Your task to perform on an android device: When is my next appointment? Image 0: 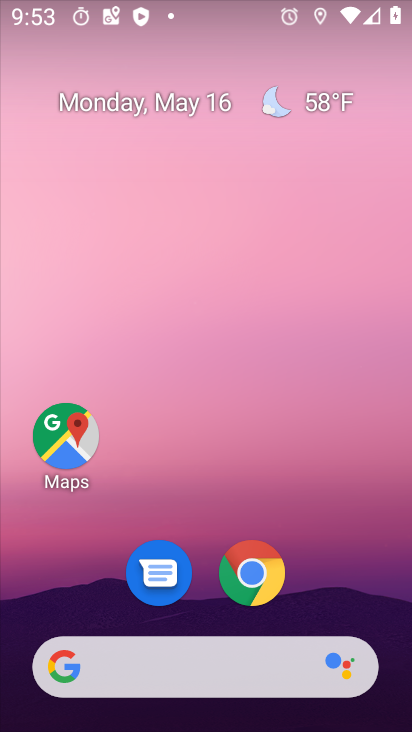
Step 0: drag from (376, 619) to (256, 0)
Your task to perform on an android device: When is my next appointment? Image 1: 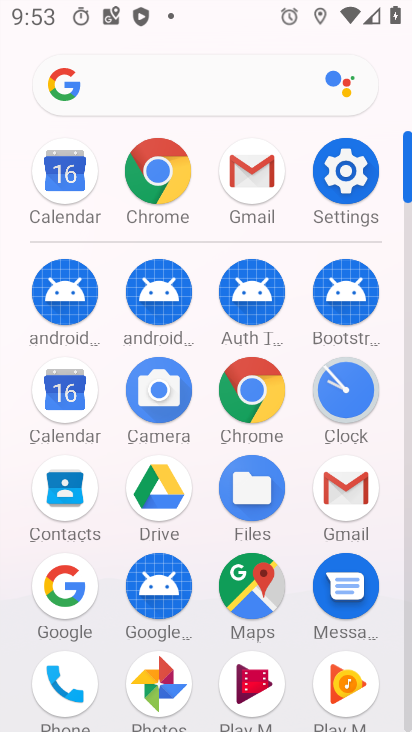
Step 1: click (56, 390)
Your task to perform on an android device: When is my next appointment? Image 2: 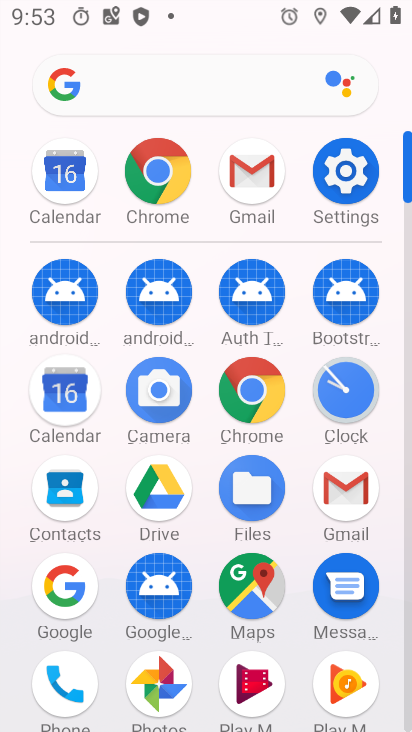
Step 2: click (59, 398)
Your task to perform on an android device: When is my next appointment? Image 3: 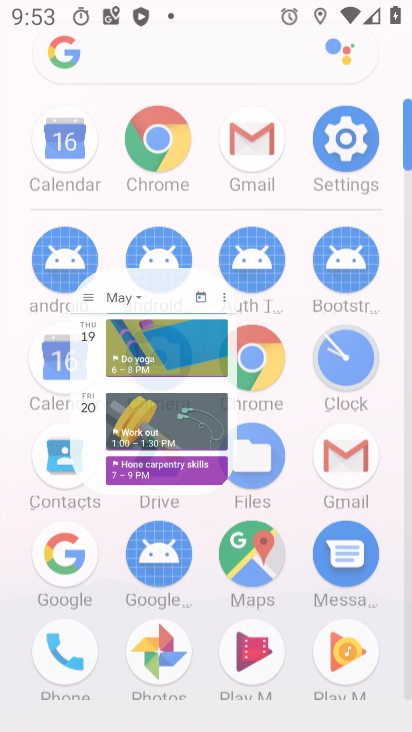
Step 3: click (60, 398)
Your task to perform on an android device: When is my next appointment? Image 4: 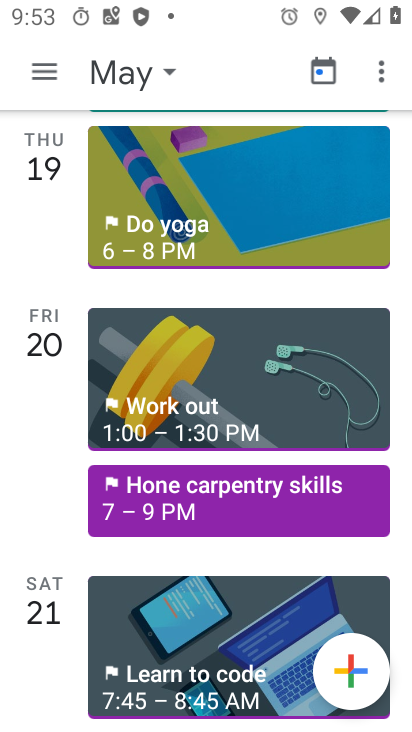
Step 4: click (176, 646)
Your task to perform on an android device: When is my next appointment? Image 5: 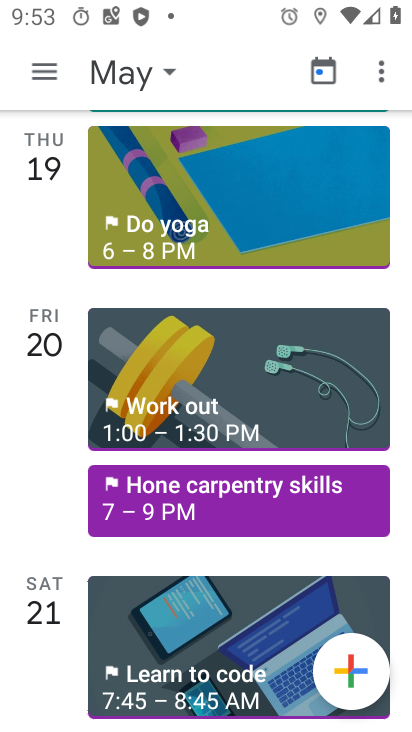
Step 5: click (176, 646)
Your task to perform on an android device: When is my next appointment? Image 6: 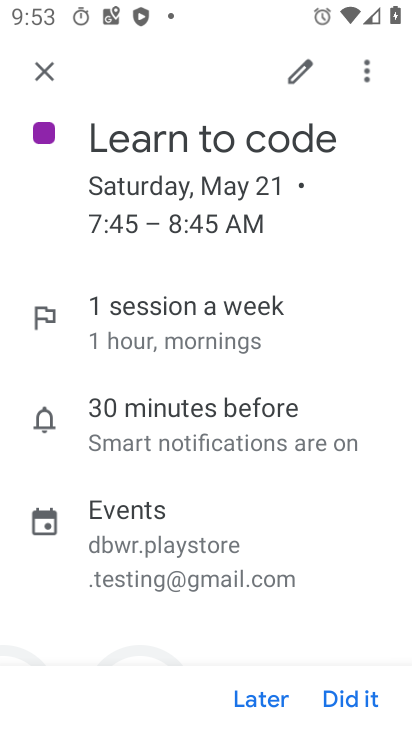
Step 6: click (30, 67)
Your task to perform on an android device: When is my next appointment? Image 7: 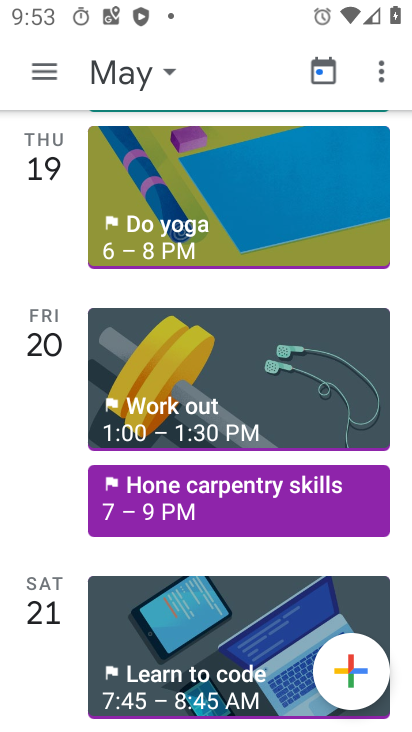
Step 7: task complete